Your task to perform on an android device: Go to Maps Image 0: 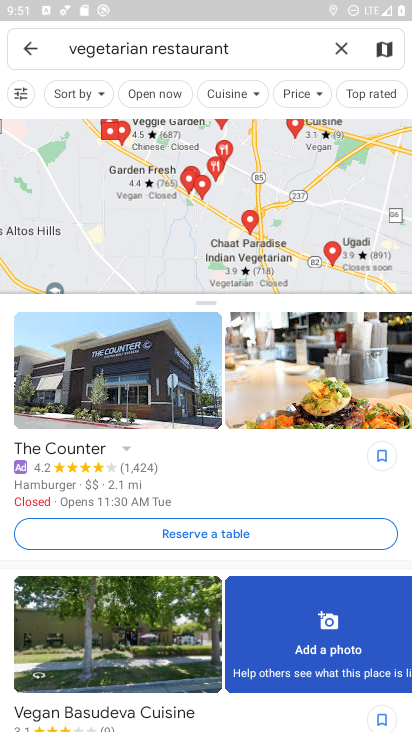
Step 0: task complete